Your task to perform on an android device: Open Amazon Image 0: 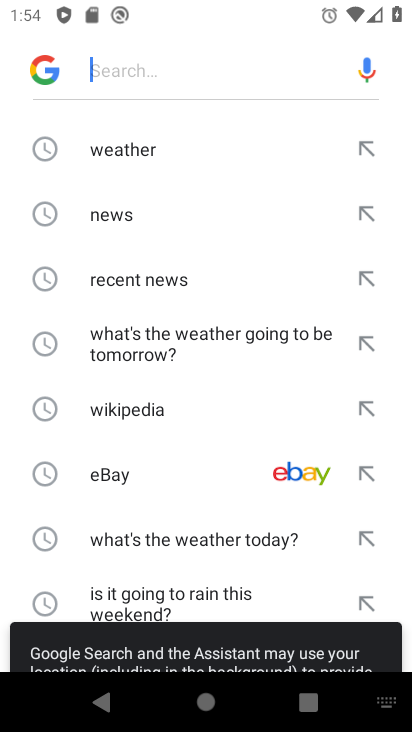
Step 0: press home button
Your task to perform on an android device: Open Amazon Image 1: 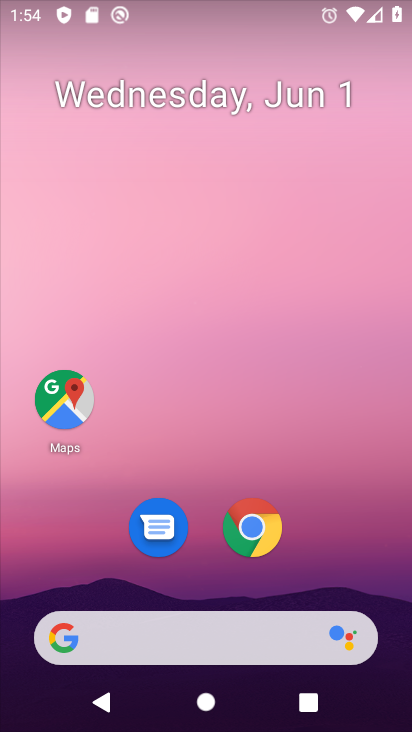
Step 1: click (269, 523)
Your task to perform on an android device: Open Amazon Image 2: 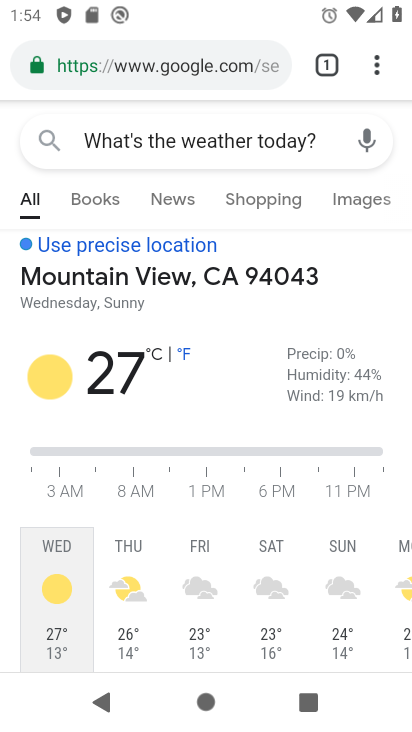
Step 2: click (325, 64)
Your task to perform on an android device: Open Amazon Image 3: 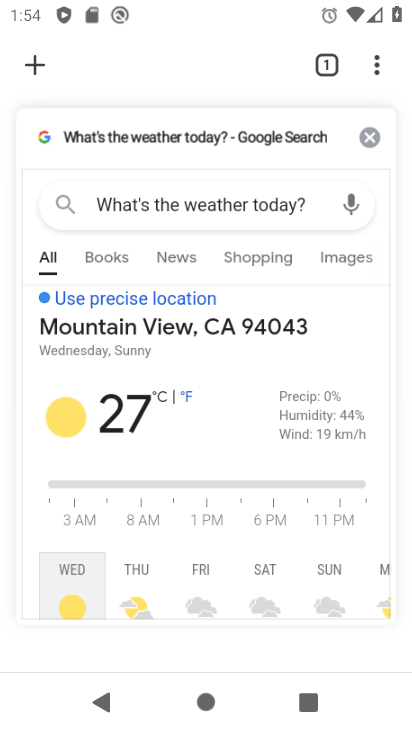
Step 3: click (54, 68)
Your task to perform on an android device: Open Amazon Image 4: 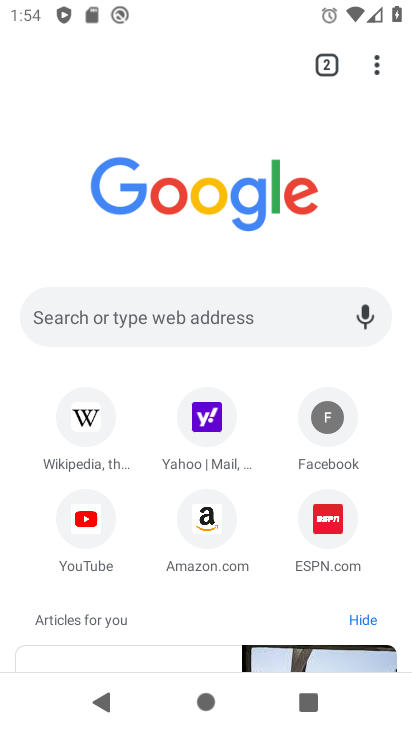
Step 4: click (221, 532)
Your task to perform on an android device: Open Amazon Image 5: 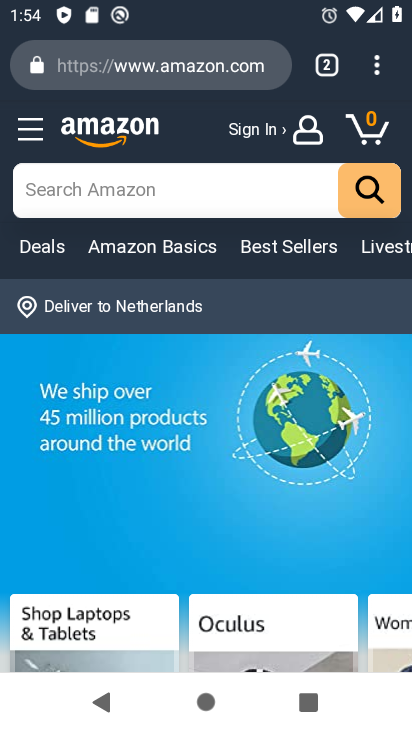
Step 5: task complete